Your task to perform on an android device: create a new album in the google photos Image 0: 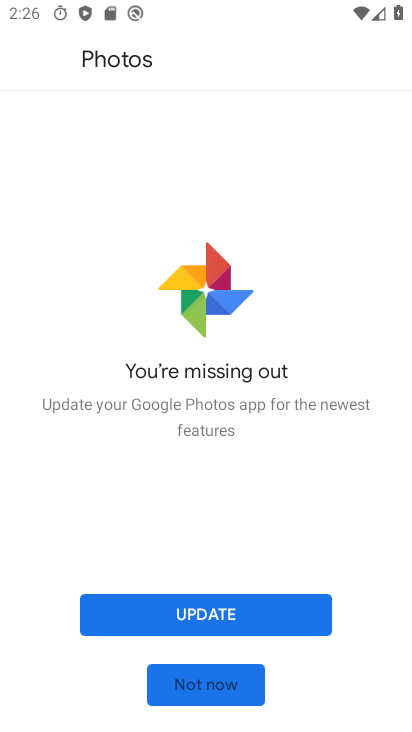
Step 0: press back button
Your task to perform on an android device: create a new album in the google photos Image 1: 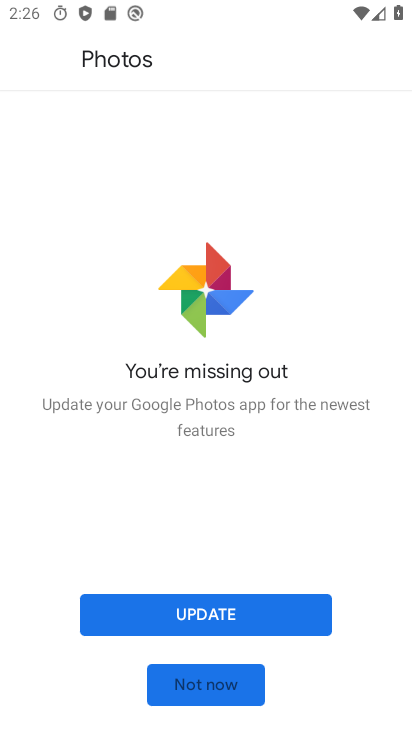
Step 1: press back button
Your task to perform on an android device: create a new album in the google photos Image 2: 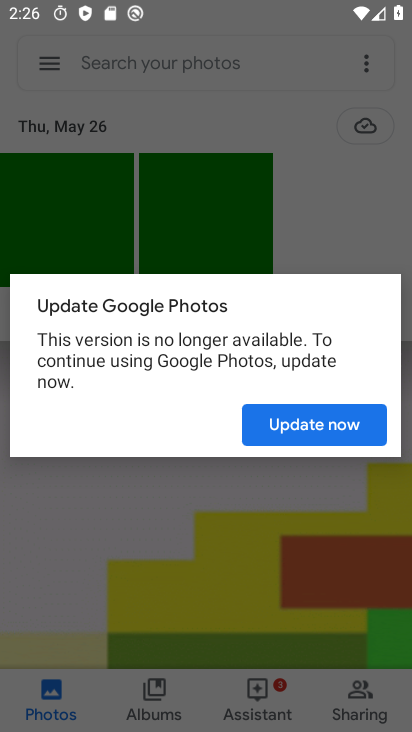
Step 2: press home button
Your task to perform on an android device: create a new album in the google photos Image 3: 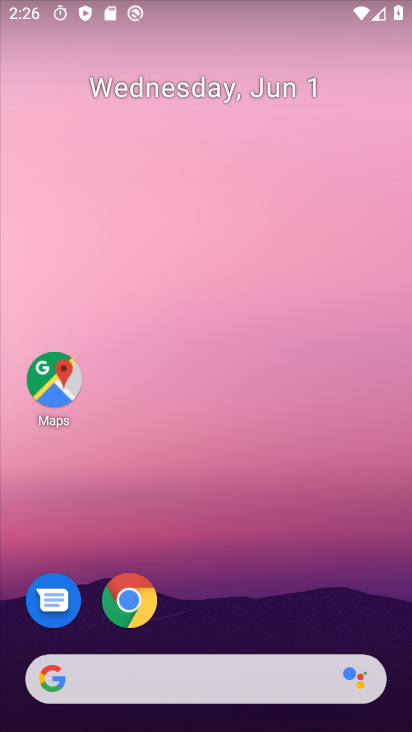
Step 3: drag from (299, 698) to (229, 183)
Your task to perform on an android device: create a new album in the google photos Image 4: 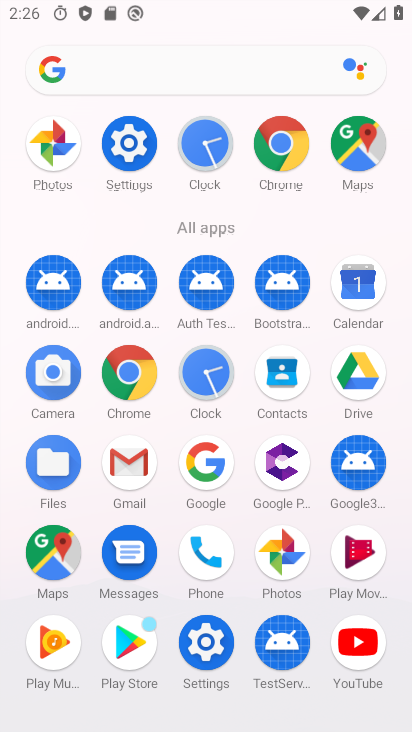
Step 4: click (284, 559)
Your task to perform on an android device: create a new album in the google photos Image 5: 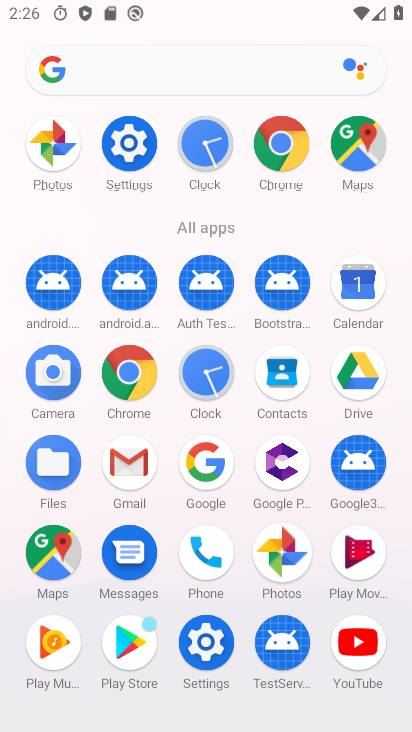
Step 5: click (284, 559)
Your task to perform on an android device: create a new album in the google photos Image 6: 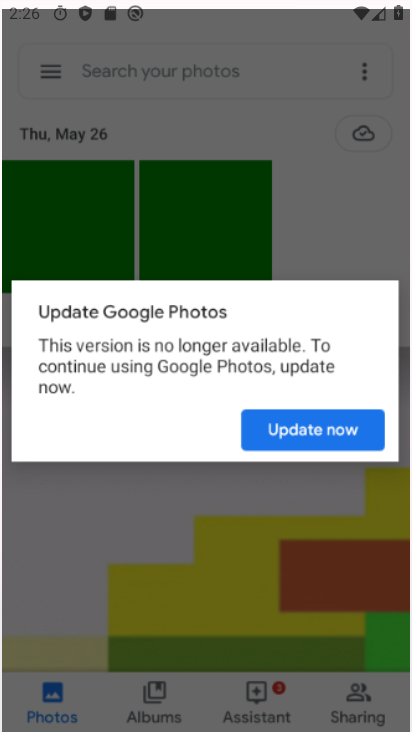
Step 6: click (284, 559)
Your task to perform on an android device: create a new album in the google photos Image 7: 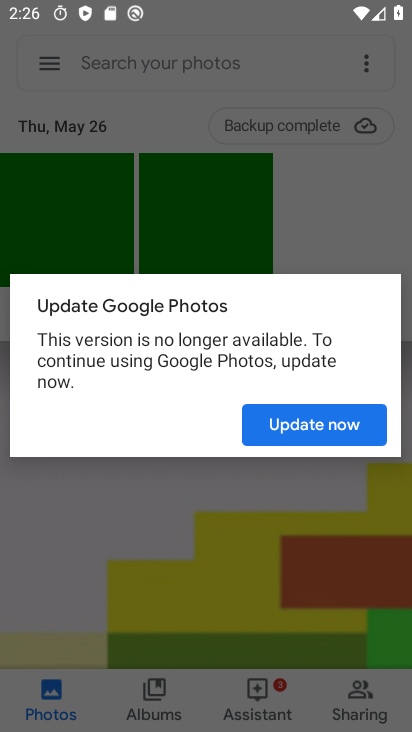
Step 7: click (313, 191)
Your task to perform on an android device: create a new album in the google photos Image 8: 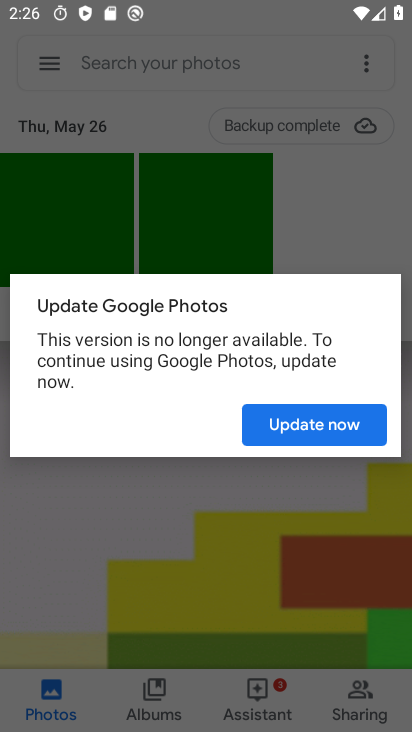
Step 8: click (330, 419)
Your task to perform on an android device: create a new album in the google photos Image 9: 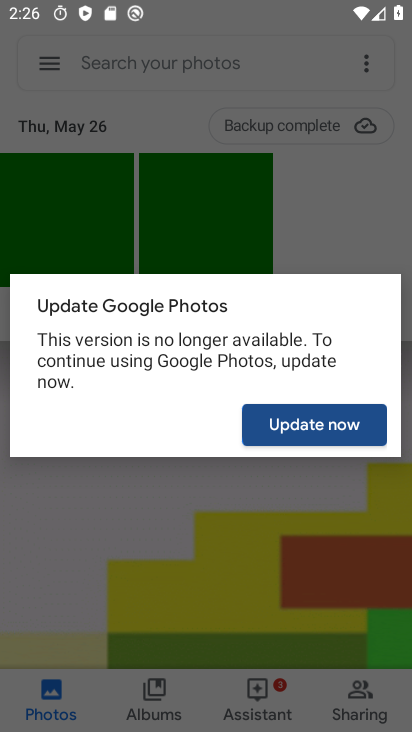
Step 9: click (330, 419)
Your task to perform on an android device: create a new album in the google photos Image 10: 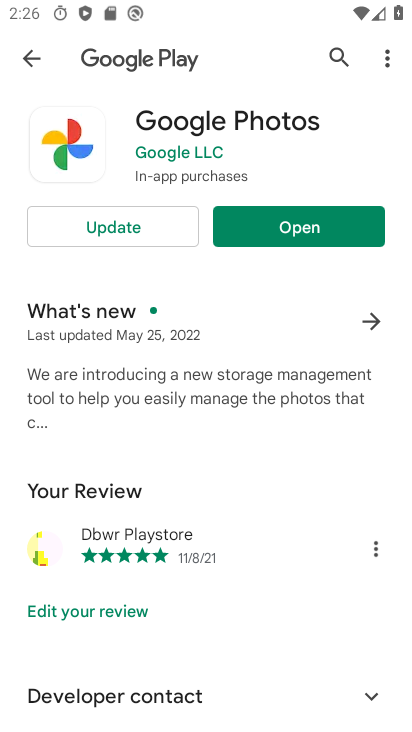
Step 10: click (148, 234)
Your task to perform on an android device: create a new album in the google photos Image 11: 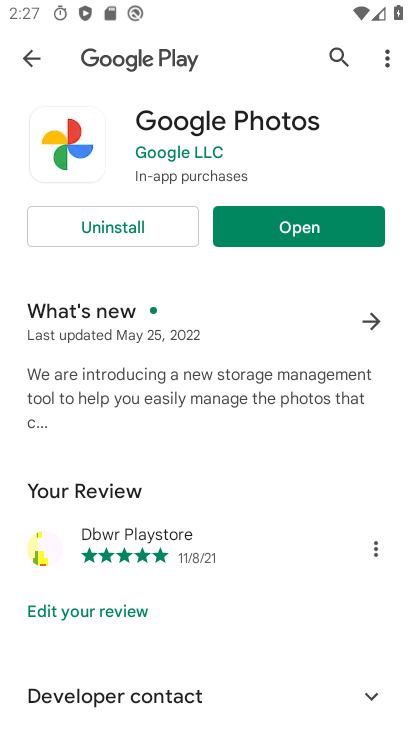
Step 11: click (318, 225)
Your task to perform on an android device: create a new album in the google photos Image 12: 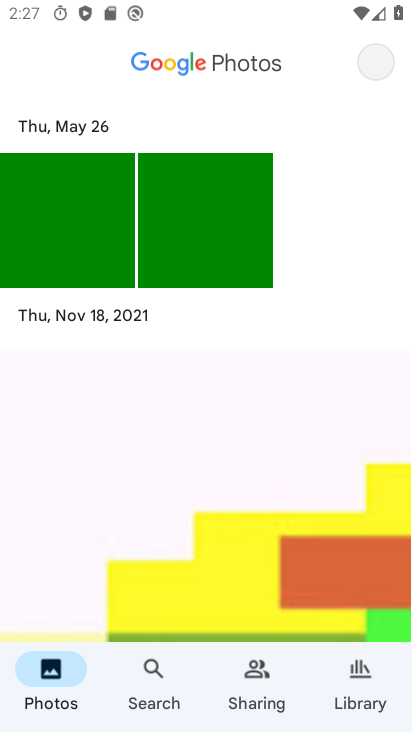
Step 12: task complete